Your task to perform on an android device: open app "Nova Launcher" (install if not already installed) and enter user name: "haggard@gmail.com" and password: "sadder" Image 0: 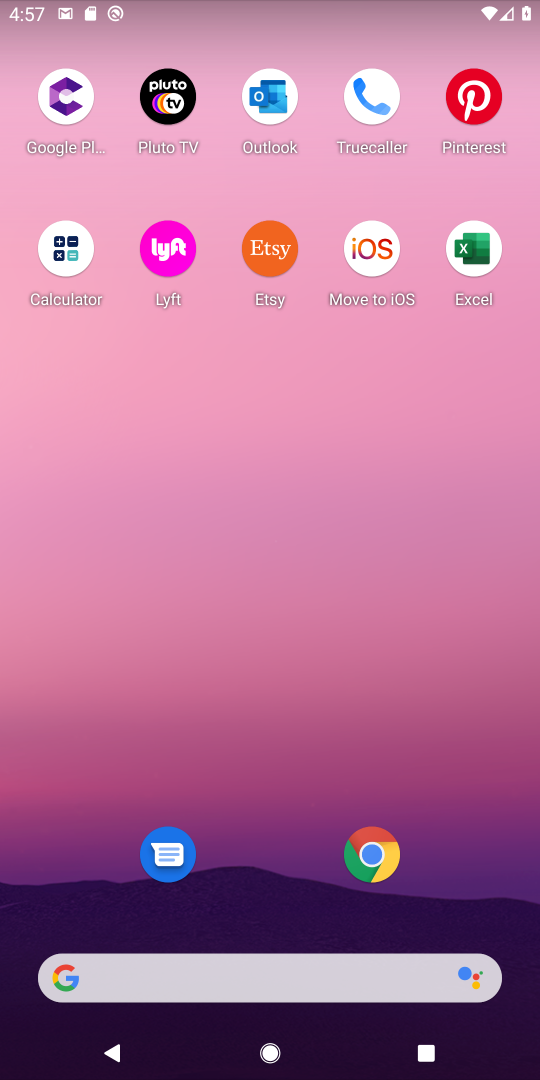
Step 0: drag from (238, 813) to (304, 138)
Your task to perform on an android device: open app "Nova Launcher" (install if not already installed) and enter user name: "haggard@gmail.com" and password: "sadder" Image 1: 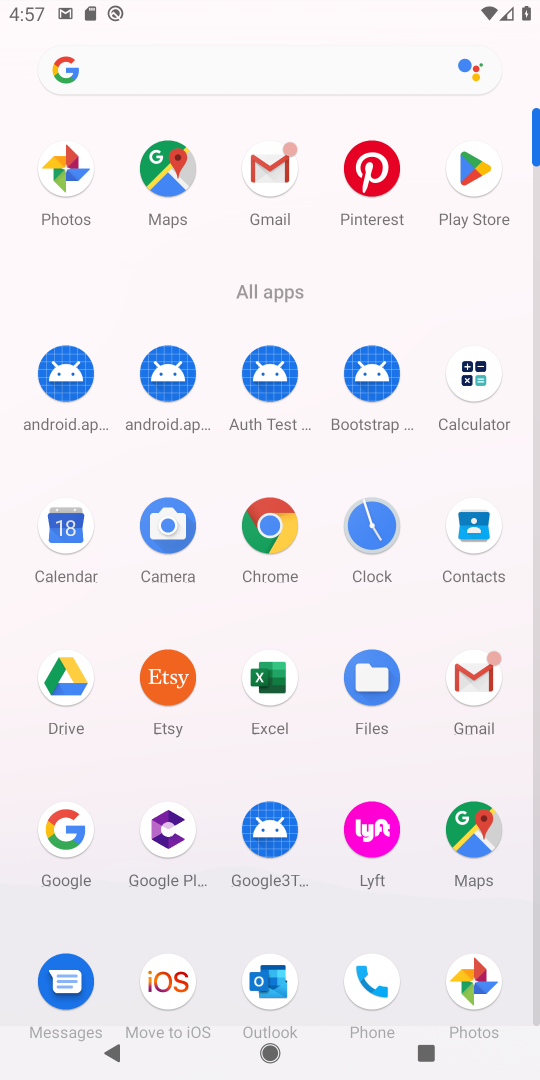
Step 1: click (477, 170)
Your task to perform on an android device: open app "Nova Launcher" (install if not already installed) and enter user name: "haggard@gmail.com" and password: "sadder" Image 2: 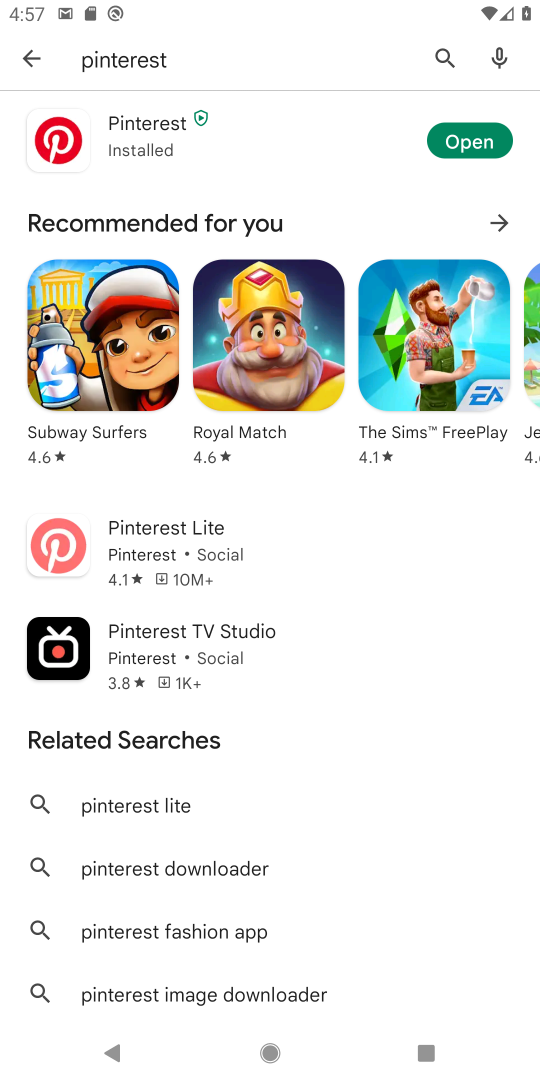
Step 2: click (35, 53)
Your task to perform on an android device: open app "Nova Launcher" (install if not already installed) and enter user name: "haggard@gmail.com" and password: "sadder" Image 3: 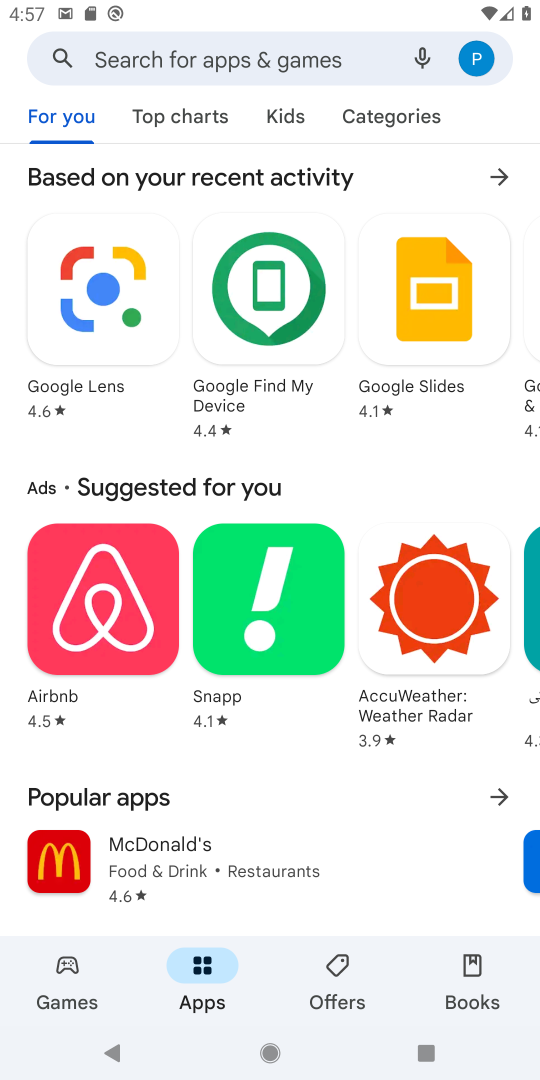
Step 3: click (151, 58)
Your task to perform on an android device: open app "Nova Launcher" (install if not already installed) and enter user name: "haggard@gmail.com" and password: "sadder" Image 4: 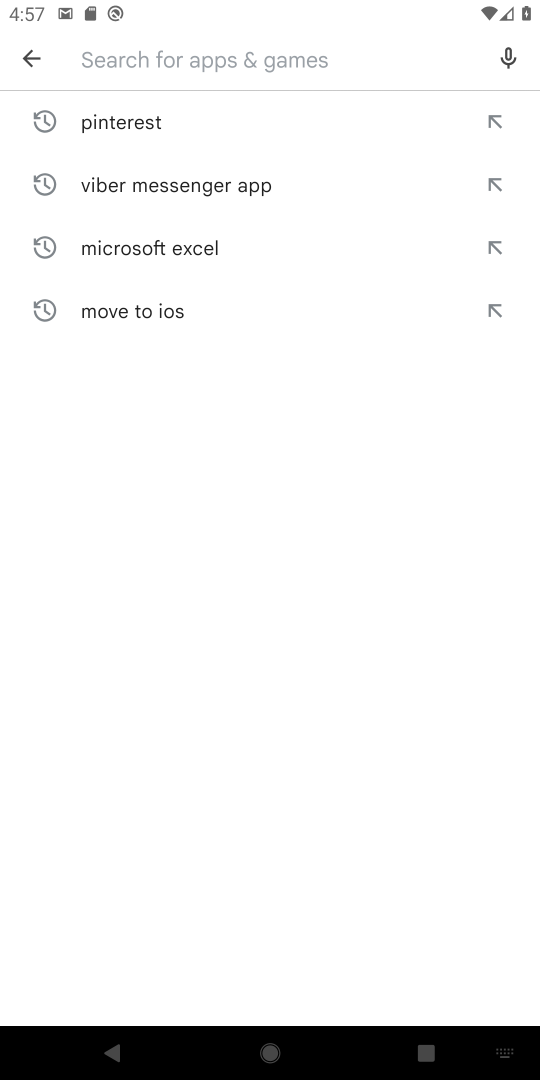
Step 4: type "Nova Launcher"
Your task to perform on an android device: open app "Nova Launcher" (install if not already installed) and enter user name: "haggard@gmail.com" and password: "sadder" Image 5: 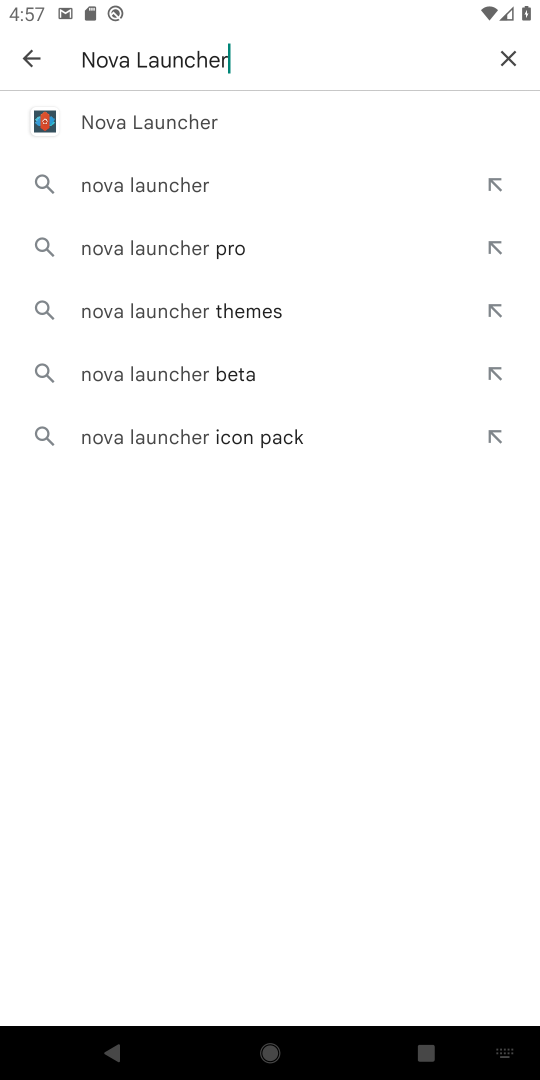
Step 5: click (171, 119)
Your task to perform on an android device: open app "Nova Launcher" (install if not already installed) and enter user name: "haggard@gmail.com" and password: "sadder" Image 6: 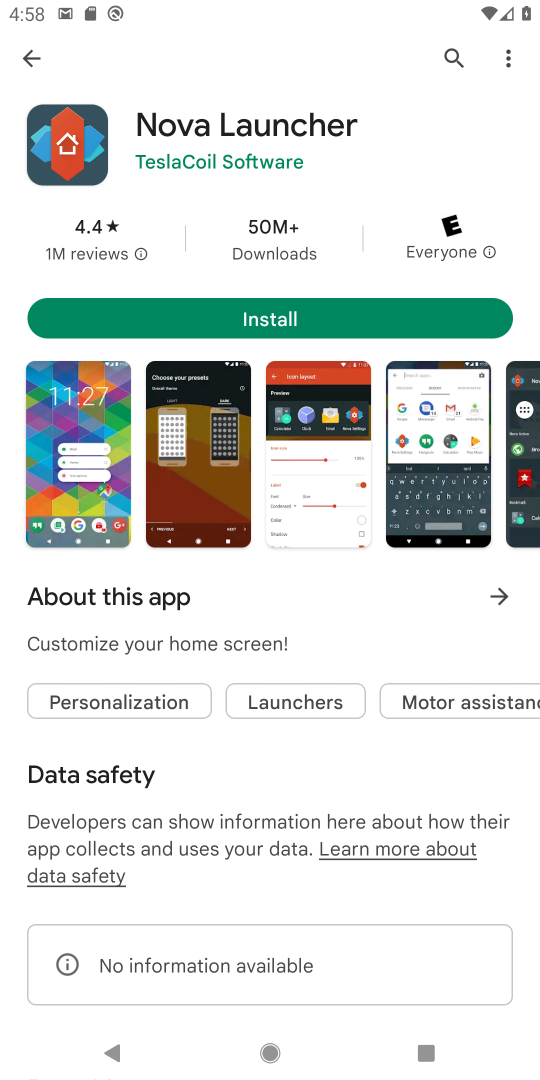
Step 6: click (264, 318)
Your task to perform on an android device: open app "Nova Launcher" (install if not already installed) and enter user name: "haggard@gmail.com" and password: "sadder" Image 7: 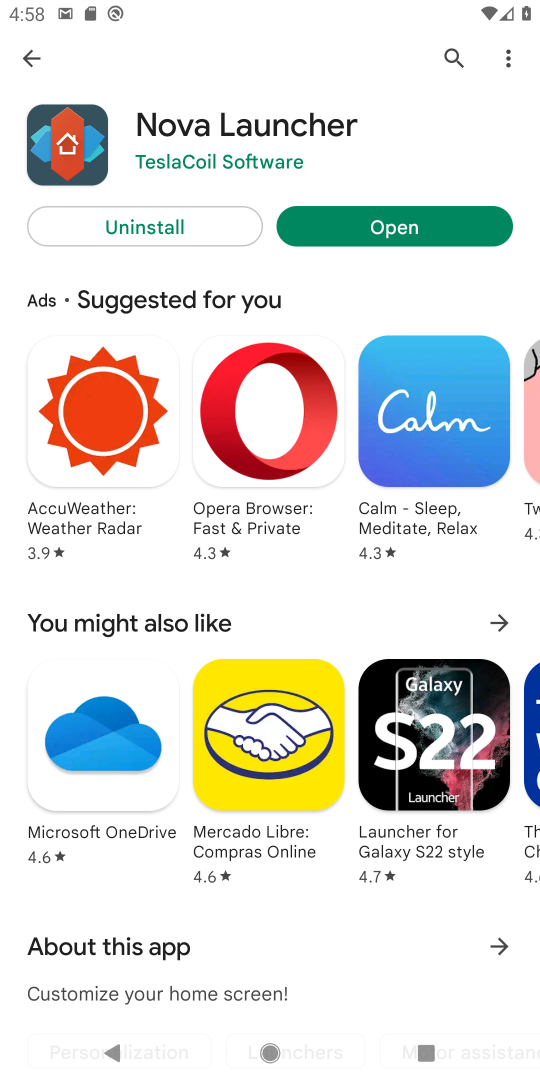
Step 7: click (369, 224)
Your task to perform on an android device: open app "Nova Launcher" (install if not already installed) and enter user name: "haggard@gmail.com" and password: "sadder" Image 8: 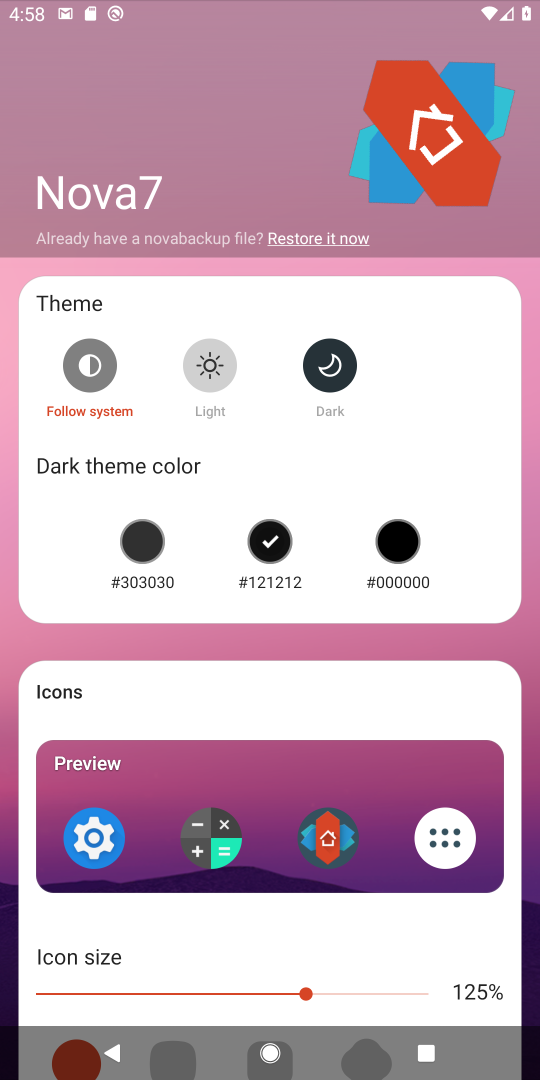
Step 8: task complete